Your task to perform on an android device: change keyboard looks Image 0: 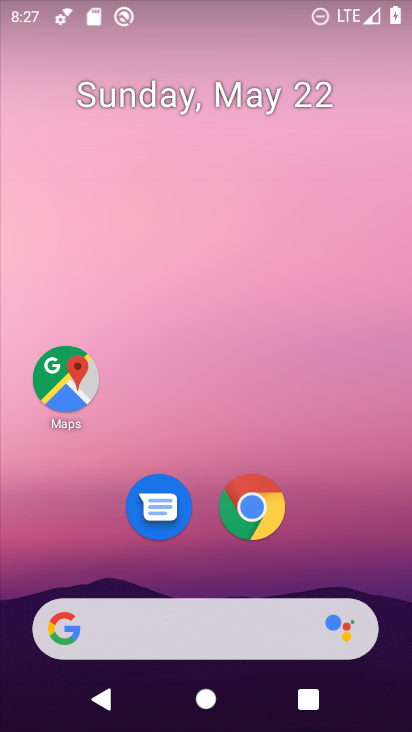
Step 0: drag from (161, 689) to (145, 30)
Your task to perform on an android device: change keyboard looks Image 1: 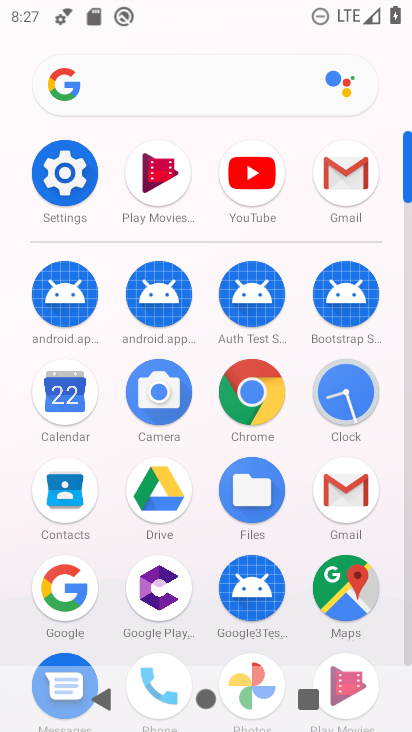
Step 1: click (46, 175)
Your task to perform on an android device: change keyboard looks Image 2: 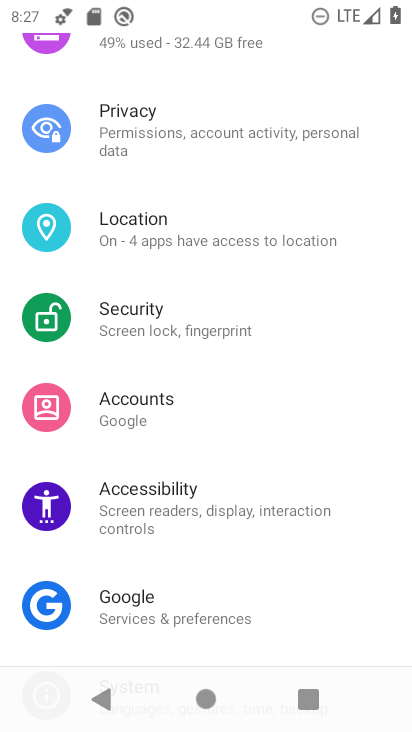
Step 2: drag from (318, 216) to (265, 650)
Your task to perform on an android device: change keyboard looks Image 3: 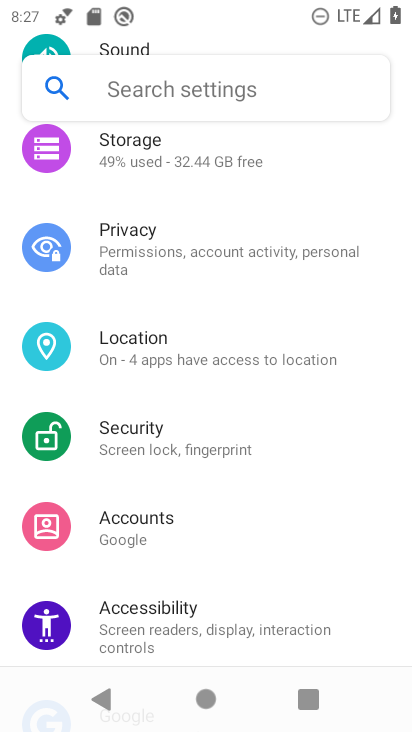
Step 3: drag from (280, 190) to (219, 552)
Your task to perform on an android device: change keyboard looks Image 4: 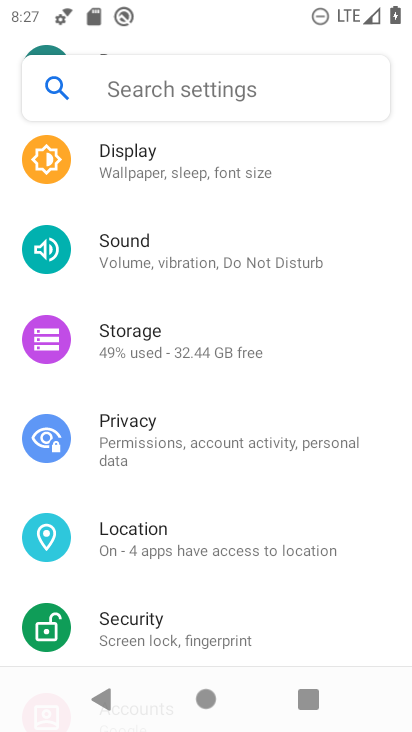
Step 4: drag from (238, 600) to (230, 18)
Your task to perform on an android device: change keyboard looks Image 5: 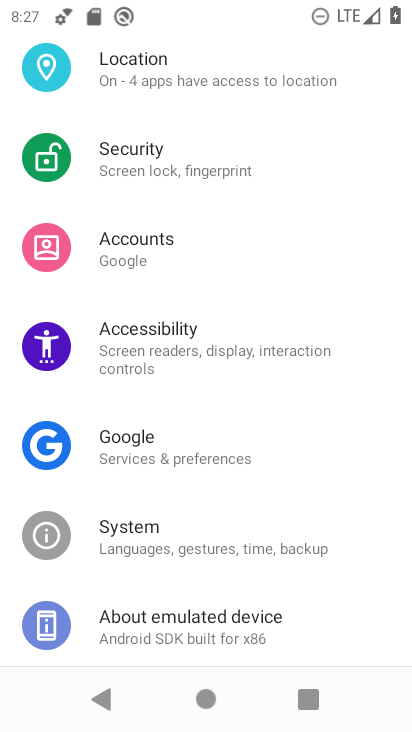
Step 5: click (252, 535)
Your task to perform on an android device: change keyboard looks Image 6: 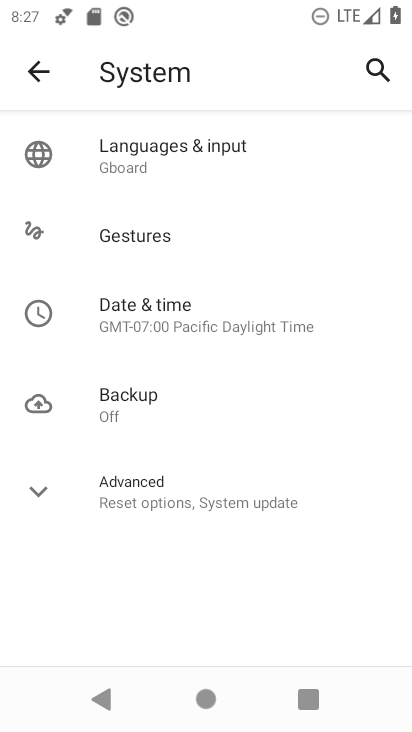
Step 6: click (117, 164)
Your task to perform on an android device: change keyboard looks Image 7: 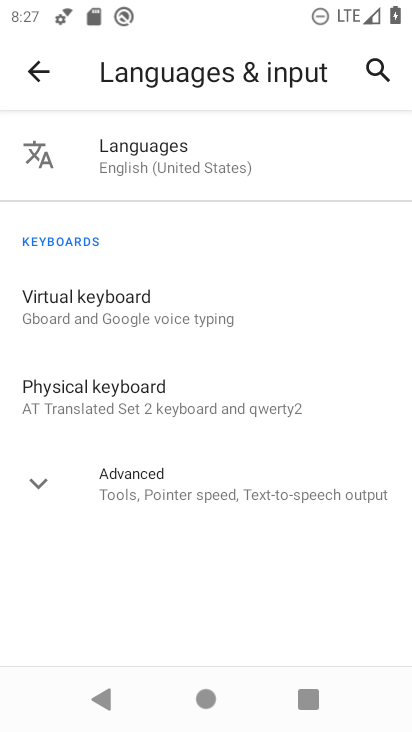
Step 7: click (125, 301)
Your task to perform on an android device: change keyboard looks Image 8: 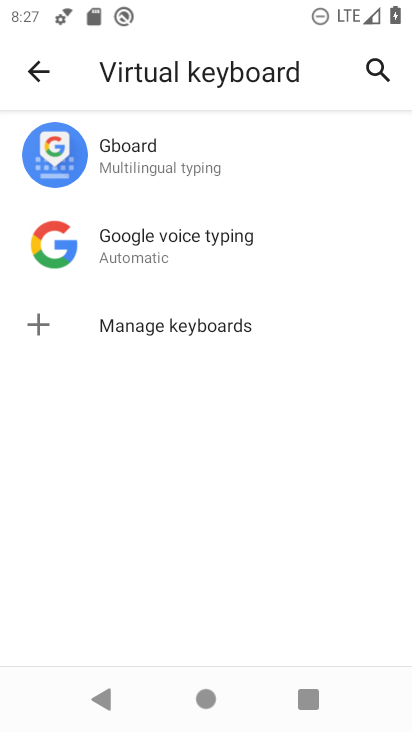
Step 8: click (166, 154)
Your task to perform on an android device: change keyboard looks Image 9: 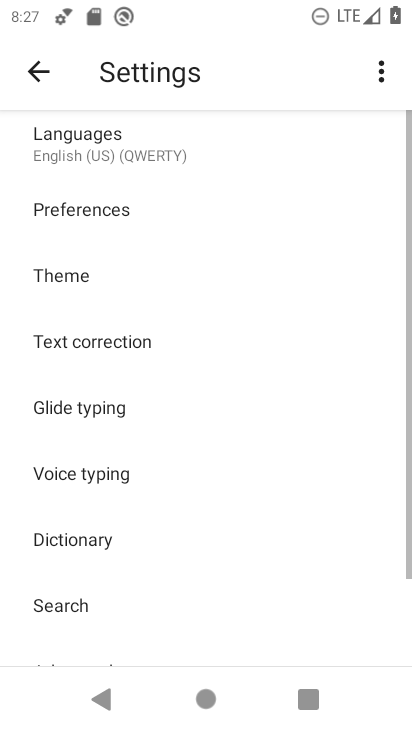
Step 9: click (76, 279)
Your task to perform on an android device: change keyboard looks Image 10: 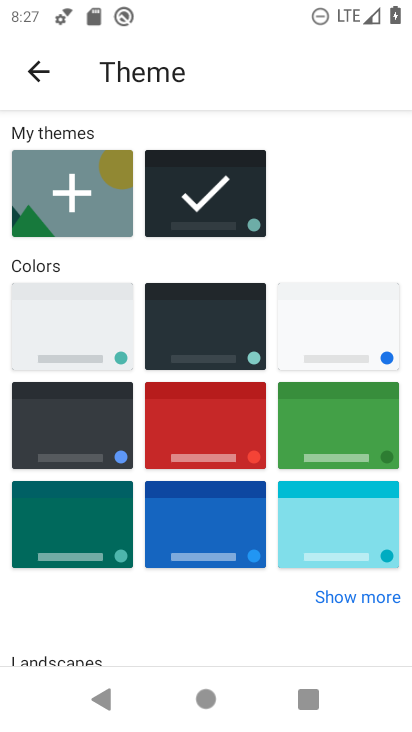
Step 10: click (222, 337)
Your task to perform on an android device: change keyboard looks Image 11: 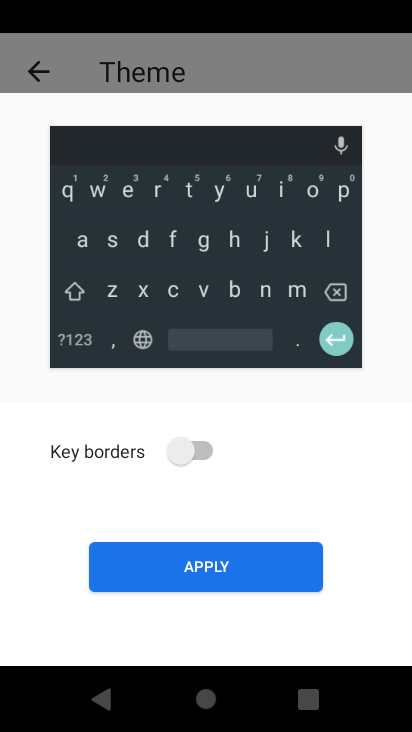
Step 11: click (282, 552)
Your task to perform on an android device: change keyboard looks Image 12: 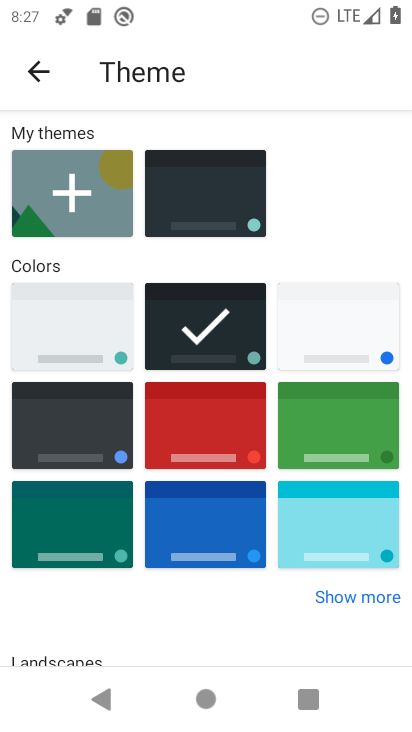
Step 12: task complete